Your task to perform on an android device: Open ESPN.com Image 0: 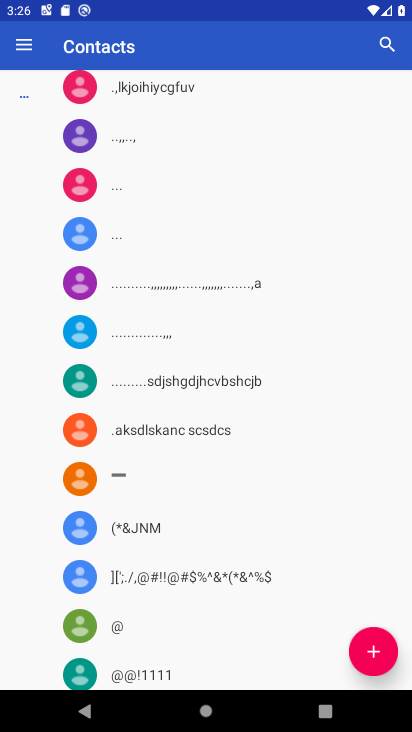
Step 0: press home button
Your task to perform on an android device: Open ESPN.com Image 1: 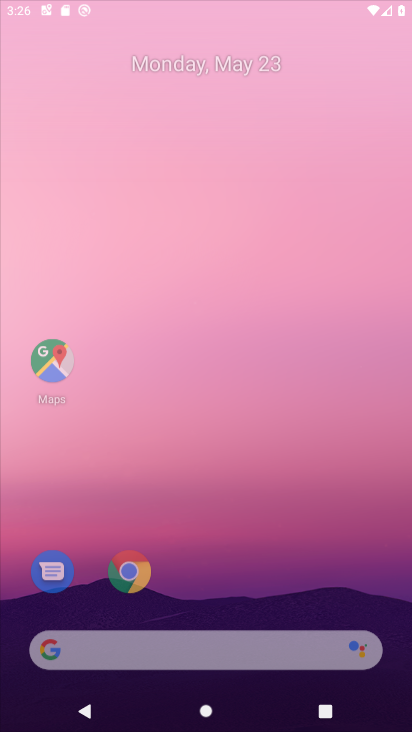
Step 1: drag from (209, 623) to (243, 0)
Your task to perform on an android device: Open ESPN.com Image 2: 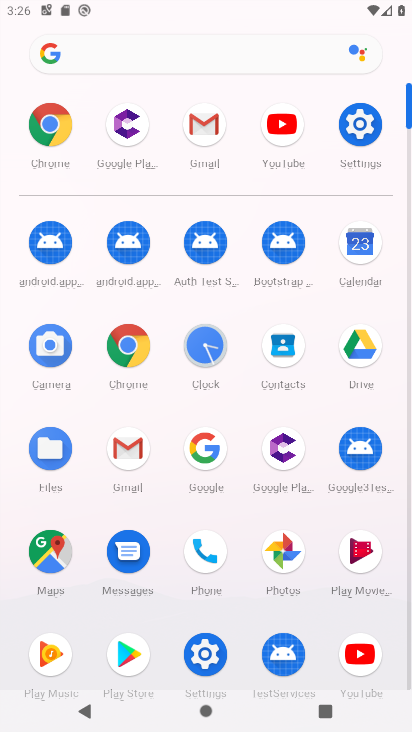
Step 2: click (131, 52)
Your task to perform on an android device: Open ESPN.com Image 3: 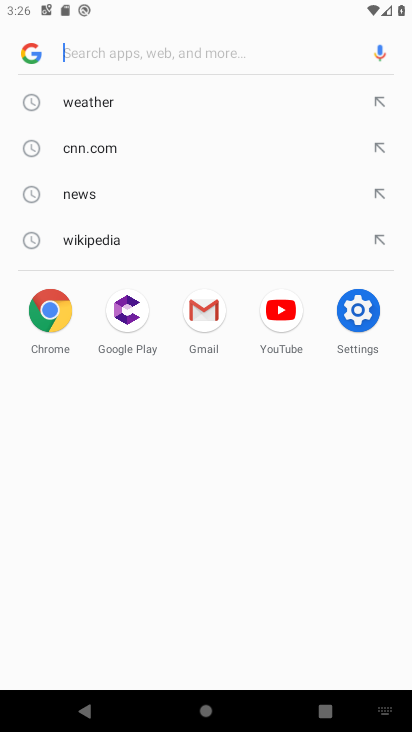
Step 3: type "espn.com"
Your task to perform on an android device: Open ESPN.com Image 4: 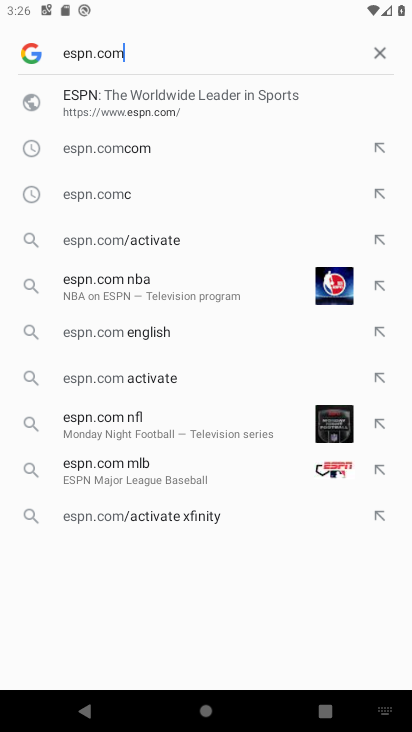
Step 4: click (125, 109)
Your task to perform on an android device: Open ESPN.com Image 5: 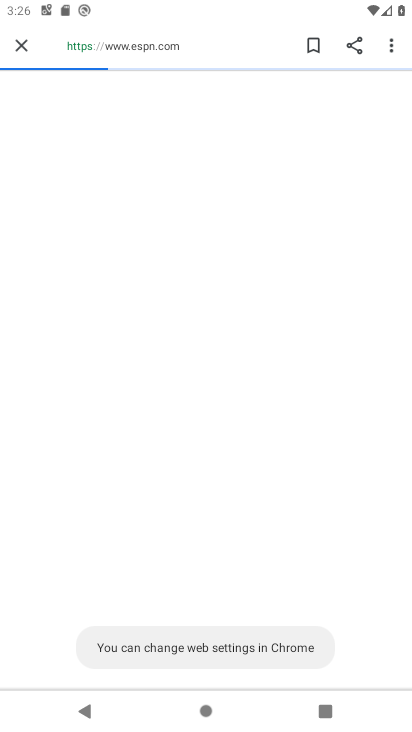
Step 5: task complete